Your task to perform on an android device: search for starred emails in the gmail app Image 0: 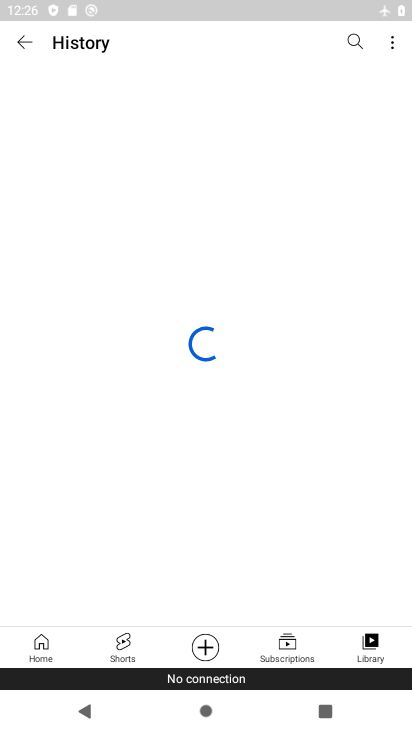
Step 0: press home button
Your task to perform on an android device: search for starred emails in the gmail app Image 1: 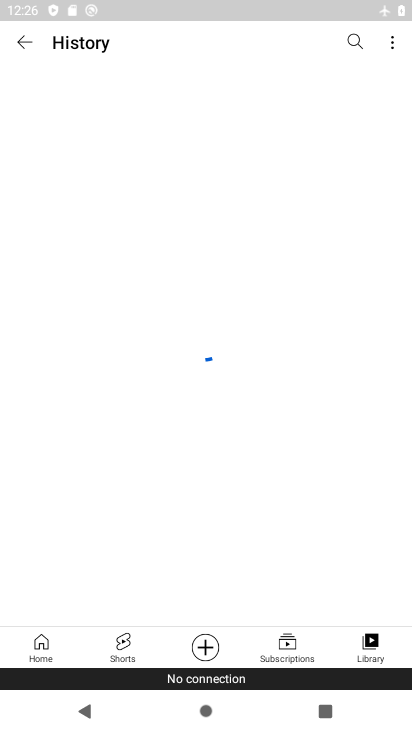
Step 1: press home button
Your task to perform on an android device: search for starred emails in the gmail app Image 2: 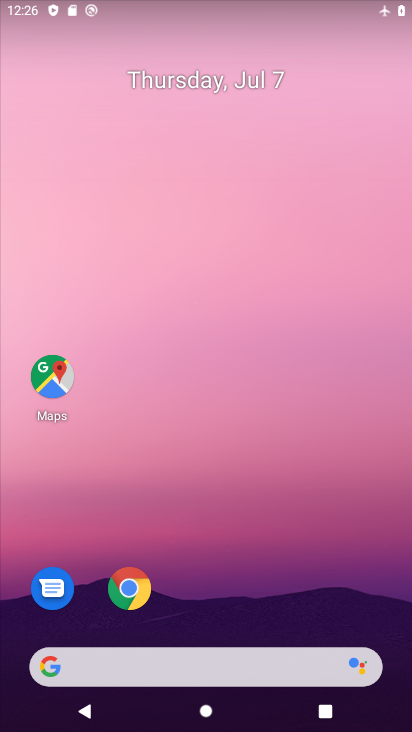
Step 2: drag from (159, 629) to (229, 113)
Your task to perform on an android device: search for starred emails in the gmail app Image 3: 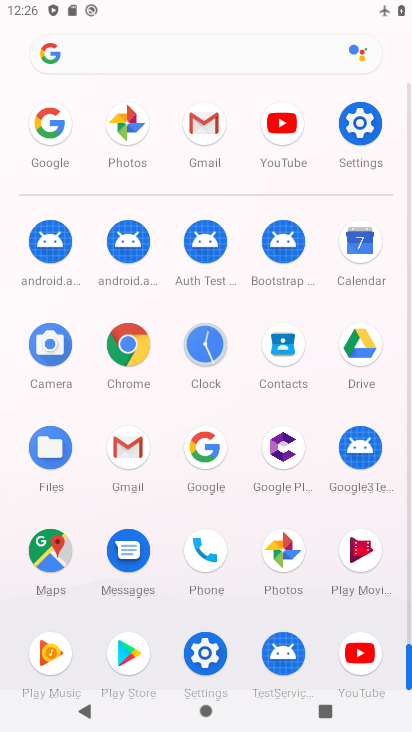
Step 3: click (136, 450)
Your task to perform on an android device: search for starred emails in the gmail app Image 4: 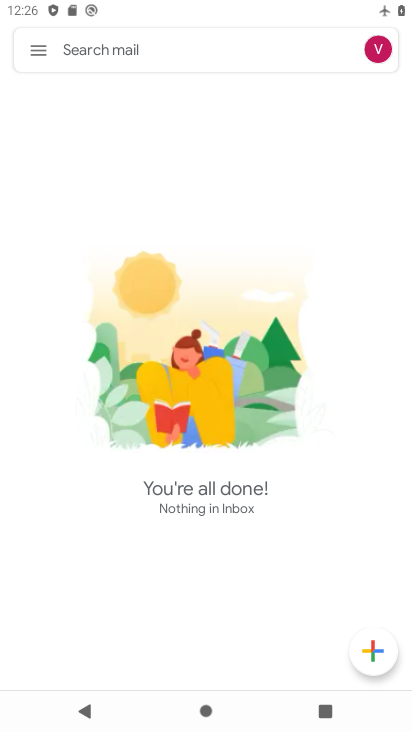
Step 4: drag from (168, 594) to (191, 406)
Your task to perform on an android device: search for starred emails in the gmail app Image 5: 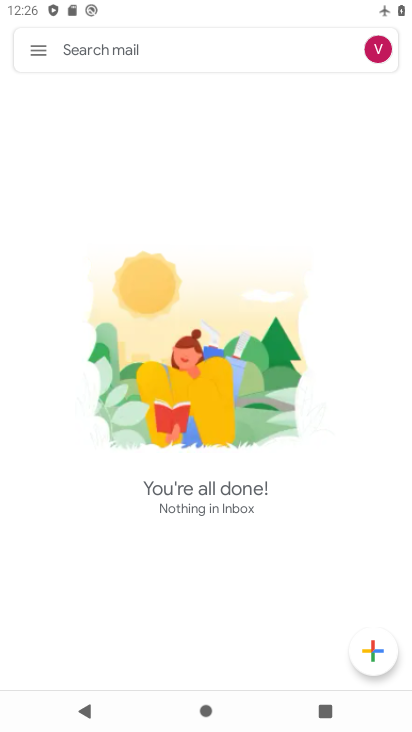
Step 5: click (42, 47)
Your task to perform on an android device: search for starred emails in the gmail app Image 6: 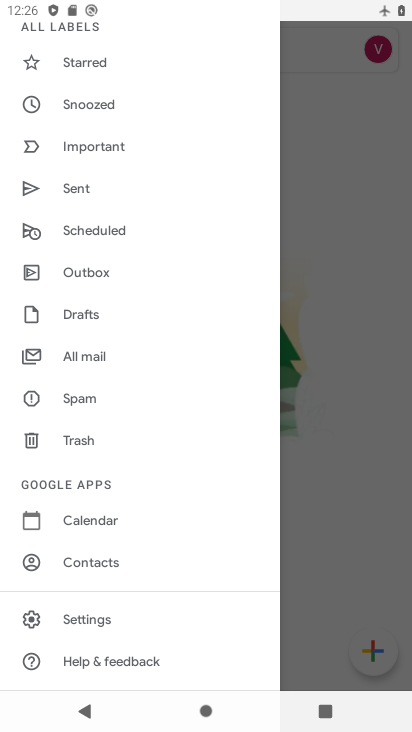
Step 6: click (98, 71)
Your task to perform on an android device: search for starred emails in the gmail app Image 7: 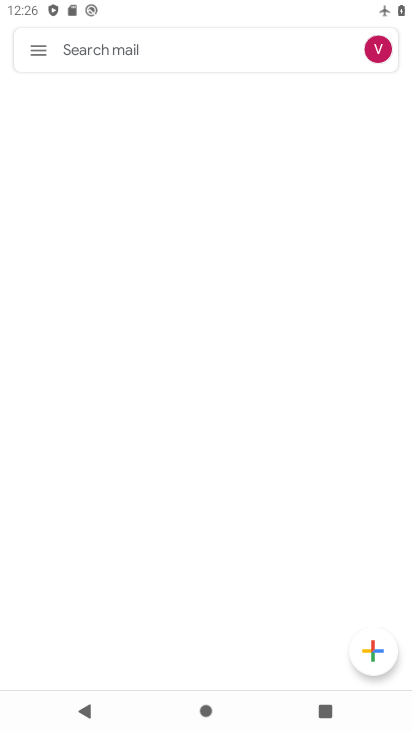
Step 7: drag from (231, 516) to (237, 237)
Your task to perform on an android device: search for starred emails in the gmail app Image 8: 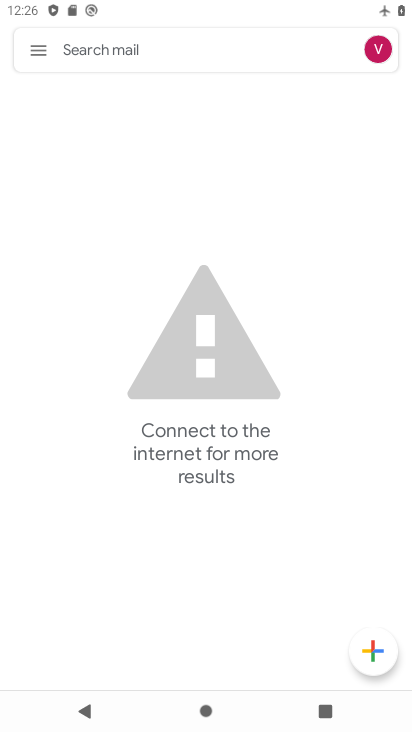
Step 8: drag from (183, 525) to (204, 332)
Your task to perform on an android device: search for starred emails in the gmail app Image 9: 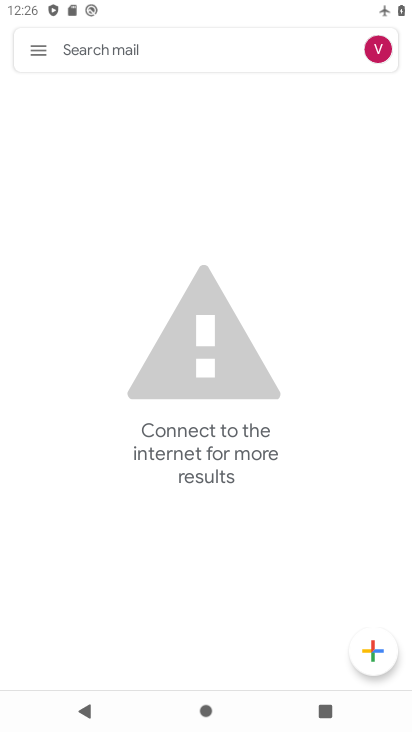
Step 9: click (212, 182)
Your task to perform on an android device: search for starred emails in the gmail app Image 10: 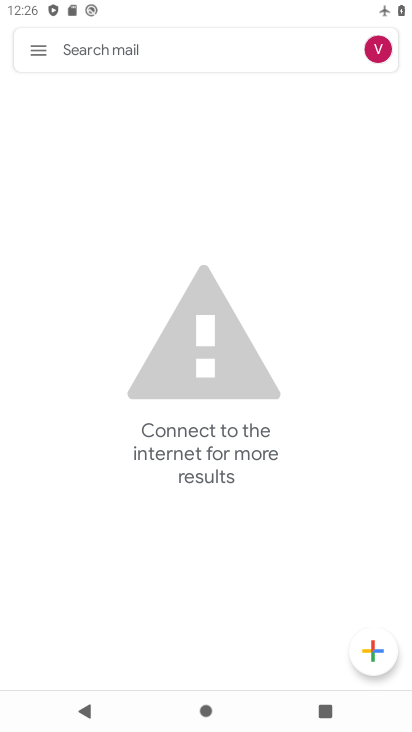
Step 10: click (212, 182)
Your task to perform on an android device: search for starred emails in the gmail app Image 11: 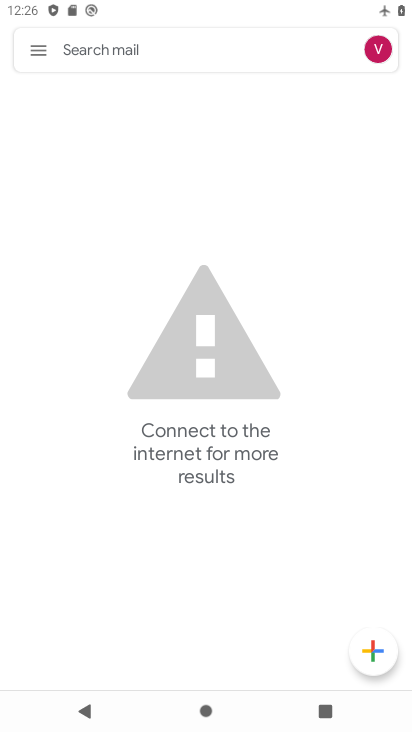
Step 11: task complete